Your task to perform on an android device: set default search engine in the chrome app Image 0: 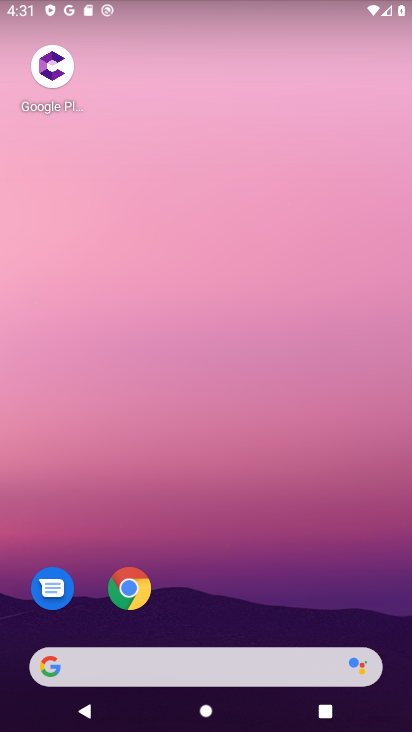
Step 0: drag from (207, 500) to (160, 166)
Your task to perform on an android device: set default search engine in the chrome app Image 1: 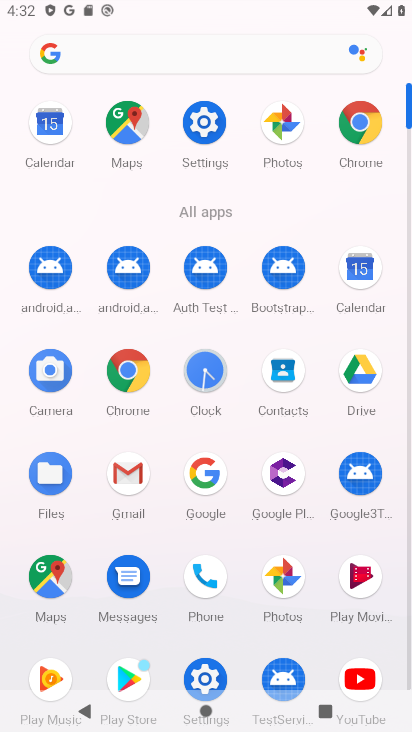
Step 1: click (126, 360)
Your task to perform on an android device: set default search engine in the chrome app Image 2: 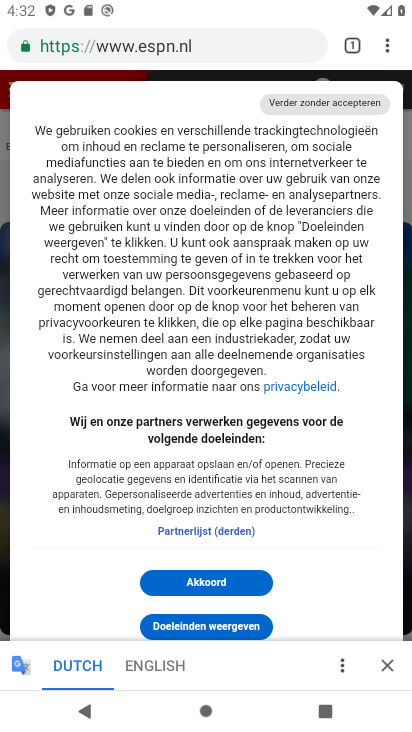
Step 2: press home button
Your task to perform on an android device: set default search engine in the chrome app Image 3: 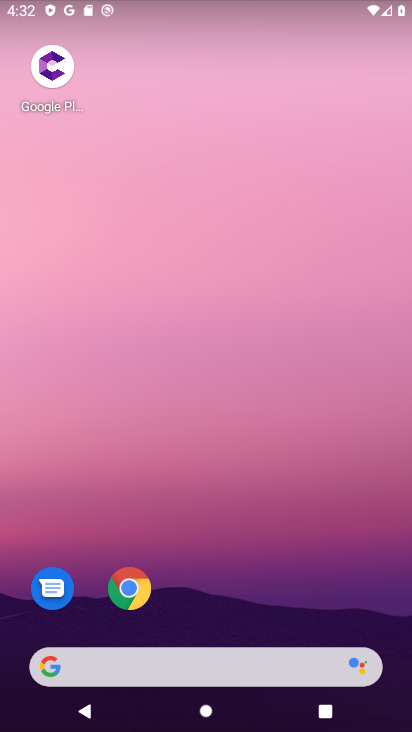
Step 3: drag from (244, 553) to (202, 206)
Your task to perform on an android device: set default search engine in the chrome app Image 4: 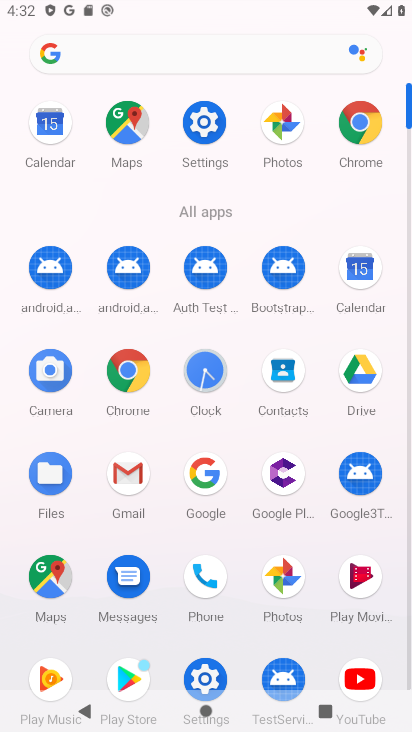
Step 4: click (137, 361)
Your task to perform on an android device: set default search engine in the chrome app Image 5: 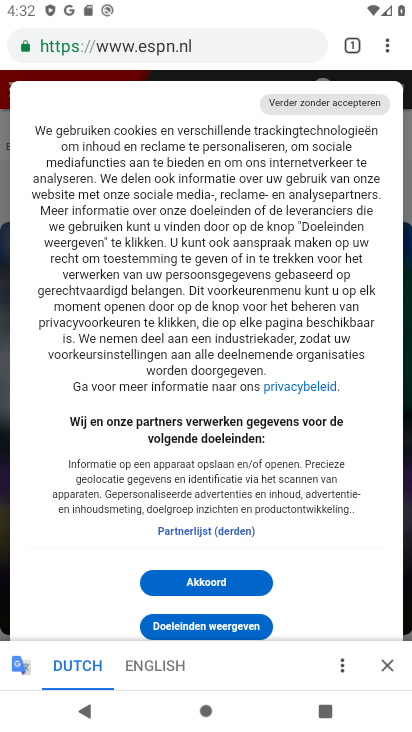
Step 5: drag from (379, 45) to (229, 604)
Your task to perform on an android device: set default search engine in the chrome app Image 6: 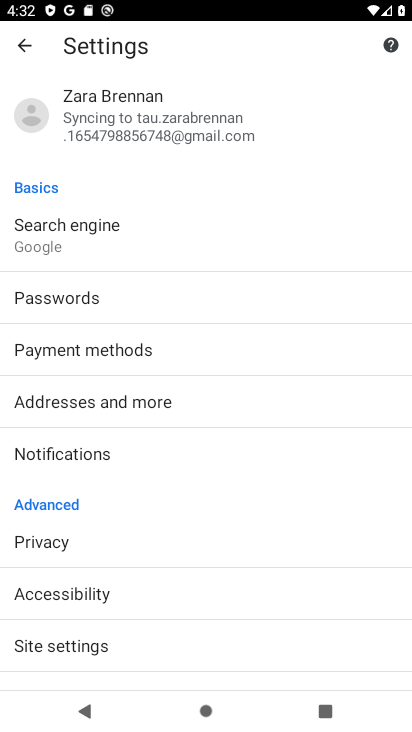
Step 6: click (30, 223)
Your task to perform on an android device: set default search engine in the chrome app Image 7: 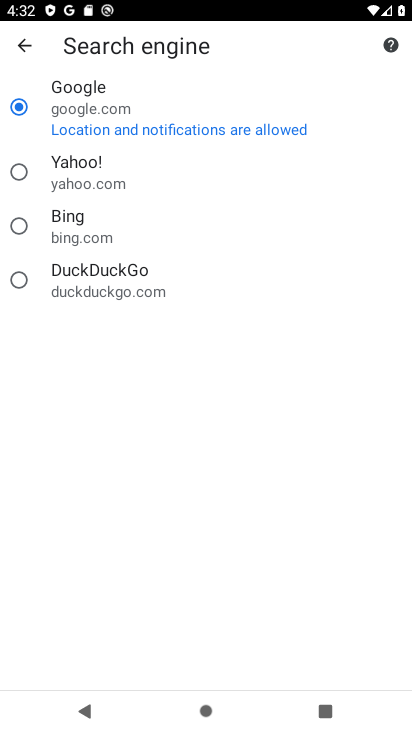
Step 7: task complete